Your task to perform on an android device: see tabs open on other devices in the chrome app Image 0: 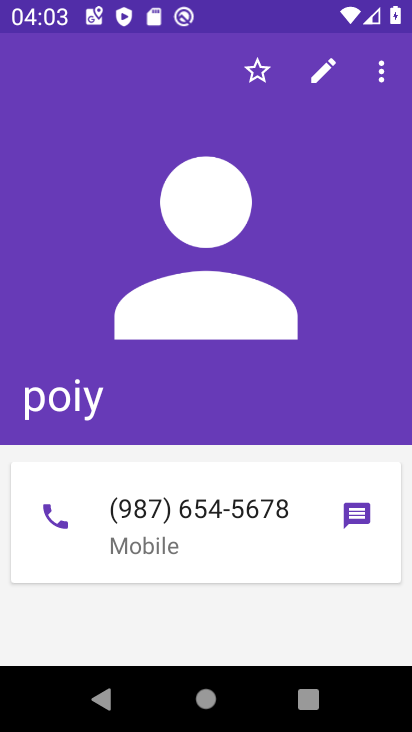
Step 0: press home button
Your task to perform on an android device: see tabs open on other devices in the chrome app Image 1: 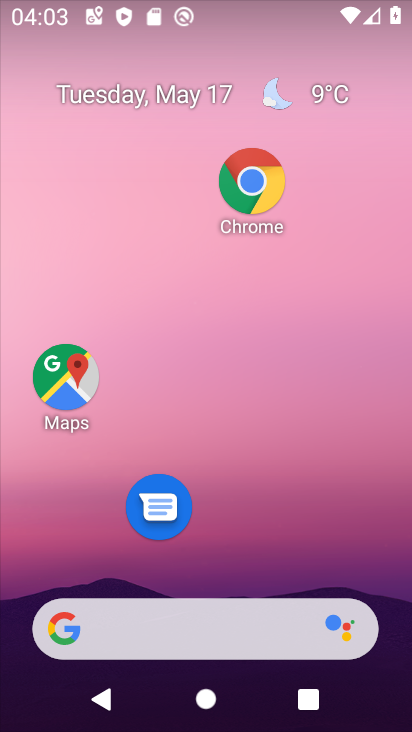
Step 1: click (262, 170)
Your task to perform on an android device: see tabs open on other devices in the chrome app Image 2: 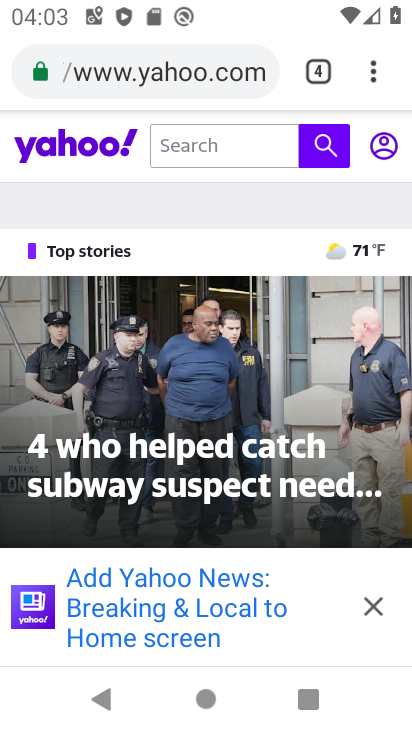
Step 2: click (366, 71)
Your task to perform on an android device: see tabs open on other devices in the chrome app Image 3: 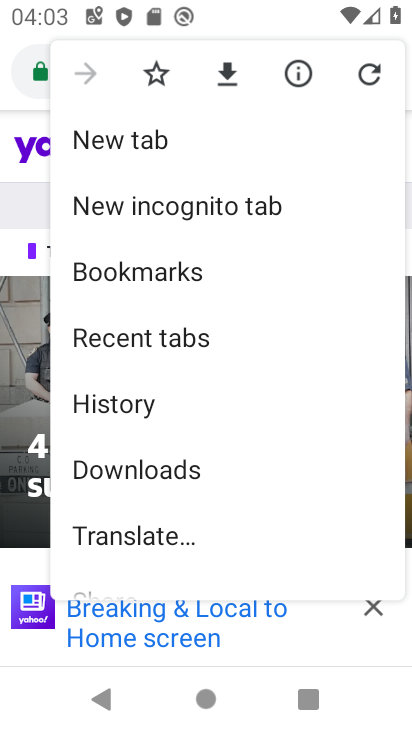
Step 3: click (125, 326)
Your task to perform on an android device: see tabs open on other devices in the chrome app Image 4: 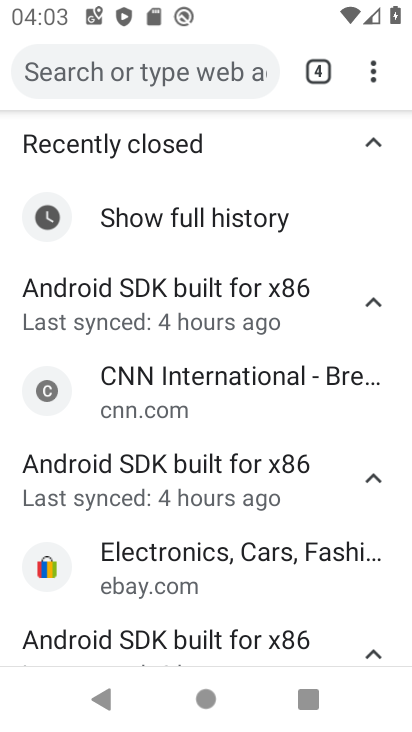
Step 4: task complete